Your task to perform on an android device: turn off smart reply in the gmail app Image 0: 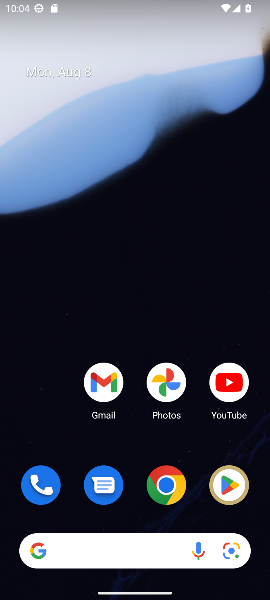
Step 0: drag from (130, 513) to (119, 102)
Your task to perform on an android device: turn off smart reply in the gmail app Image 1: 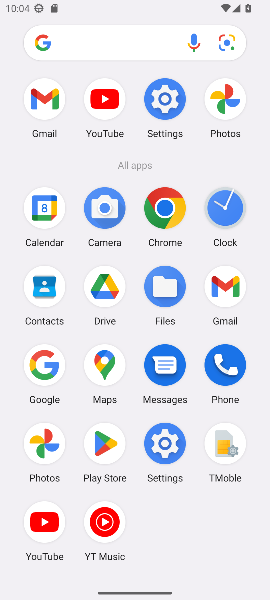
Step 1: click (235, 274)
Your task to perform on an android device: turn off smart reply in the gmail app Image 2: 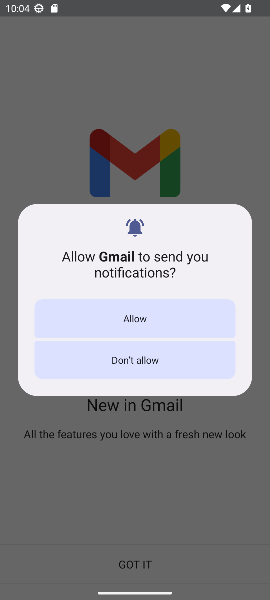
Step 2: click (174, 324)
Your task to perform on an android device: turn off smart reply in the gmail app Image 3: 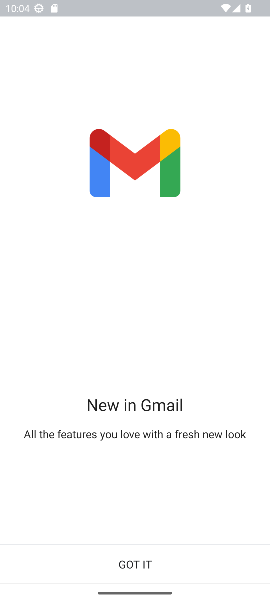
Step 3: click (121, 556)
Your task to perform on an android device: turn off smart reply in the gmail app Image 4: 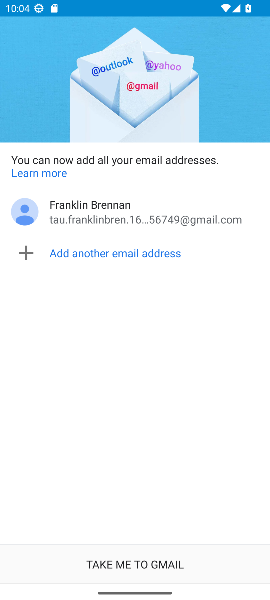
Step 4: click (121, 556)
Your task to perform on an android device: turn off smart reply in the gmail app Image 5: 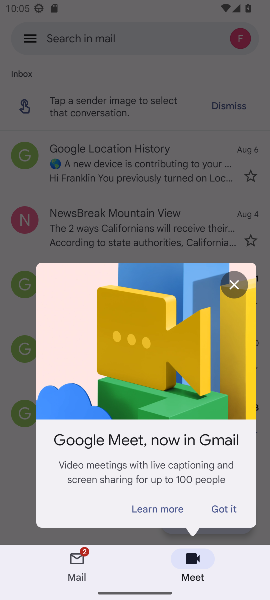
Step 5: click (231, 274)
Your task to perform on an android device: turn off smart reply in the gmail app Image 6: 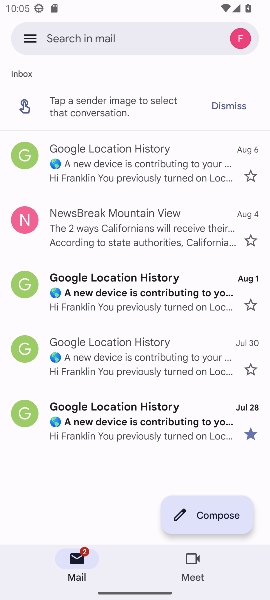
Step 6: click (33, 41)
Your task to perform on an android device: turn off smart reply in the gmail app Image 7: 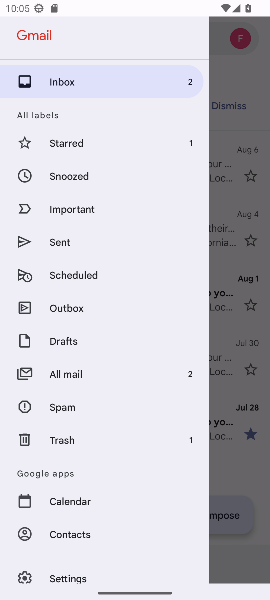
Step 7: drag from (101, 511) to (104, 256)
Your task to perform on an android device: turn off smart reply in the gmail app Image 8: 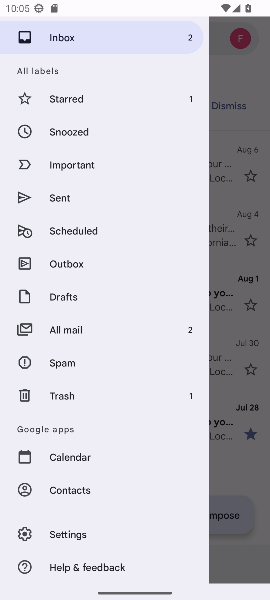
Step 8: click (76, 534)
Your task to perform on an android device: turn off smart reply in the gmail app Image 9: 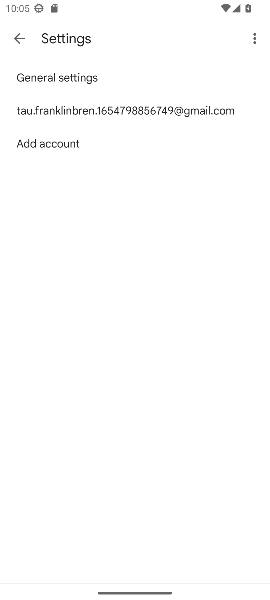
Step 9: click (129, 104)
Your task to perform on an android device: turn off smart reply in the gmail app Image 10: 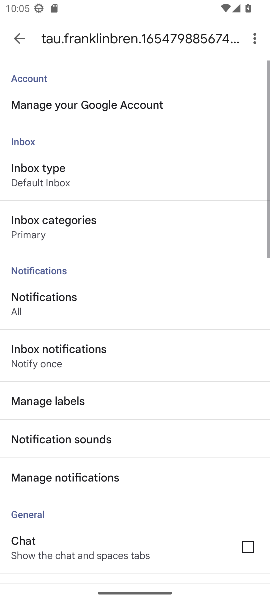
Step 10: drag from (140, 551) to (140, 238)
Your task to perform on an android device: turn off smart reply in the gmail app Image 11: 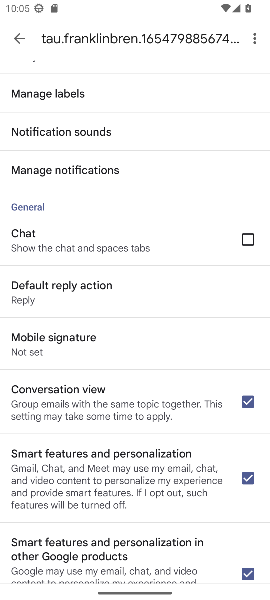
Step 11: drag from (139, 519) to (143, 241)
Your task to perform on an android device: turn off smart reply in the gmail app Image 12: 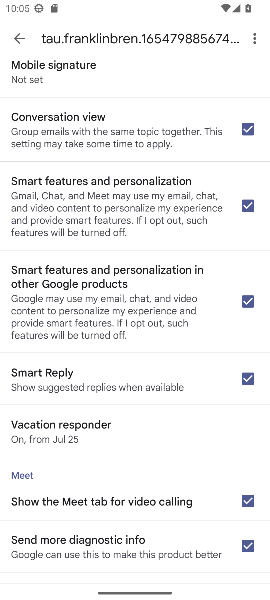
Step 12: click (220, 369)
Your task to perform on an android device: turn off smart reply in the gmail app Image 13: 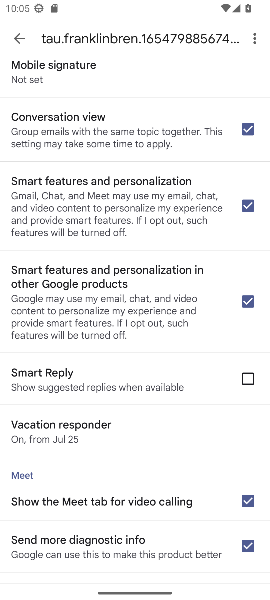
Step 13: task complete